Your task to perform on an android device: turn vacation reply on in the gmail app Image 0: 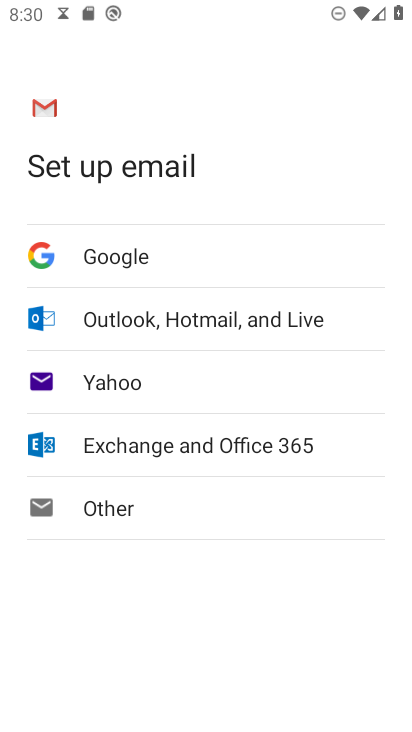
Step 0: press home button
Your task to perform on an android device: turn vacation reply on in the gmail app Image 1: 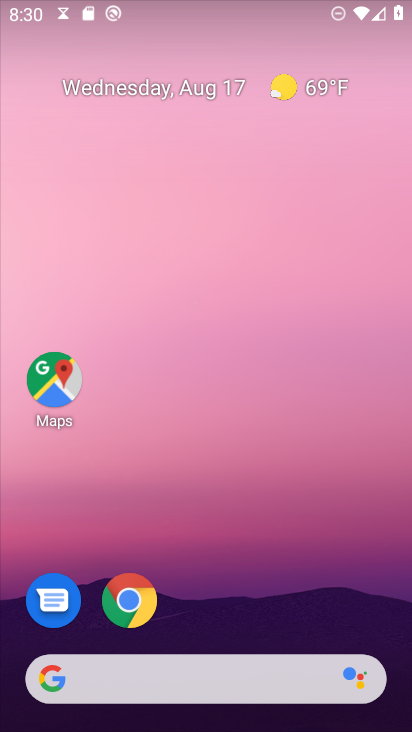
Step 1: drag from (267, 606) to (228, 29)
Your task to perform on an android device: turn vacation reply on in the gmail app Image 2: 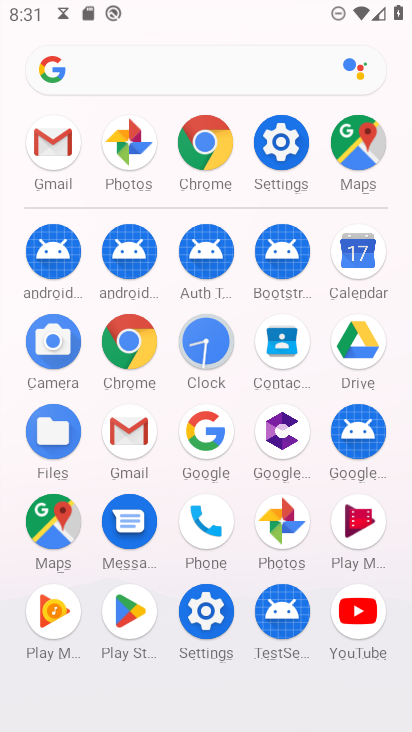
Step 2: click (50, 145)
Your task to perform on an android device: turn vacation reply on in the gmail app Image 3: 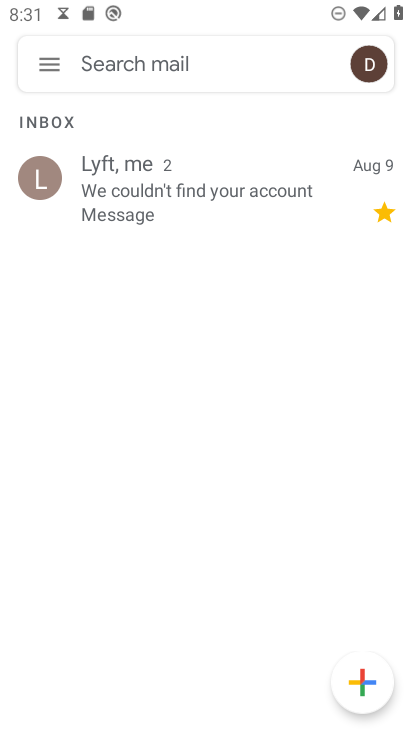
Step 3: click (56, 52)
Your task to perform on an android device: turn vacation reply on in the gmail app Image 4: 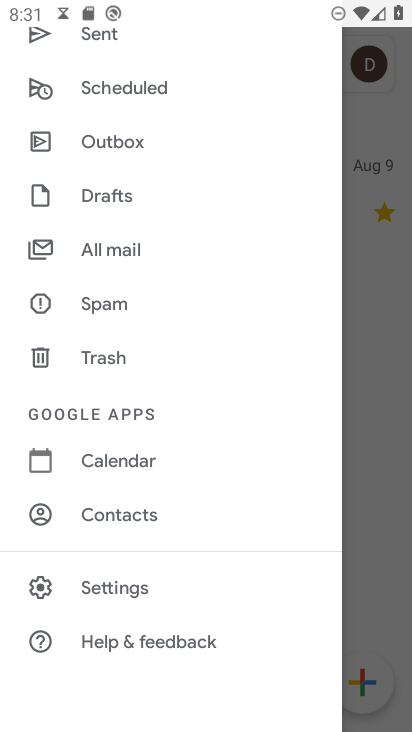
Step 4: click (119, 589)
Your task to perform on an android device: turn vacation reply on in the gmail app Image 5: 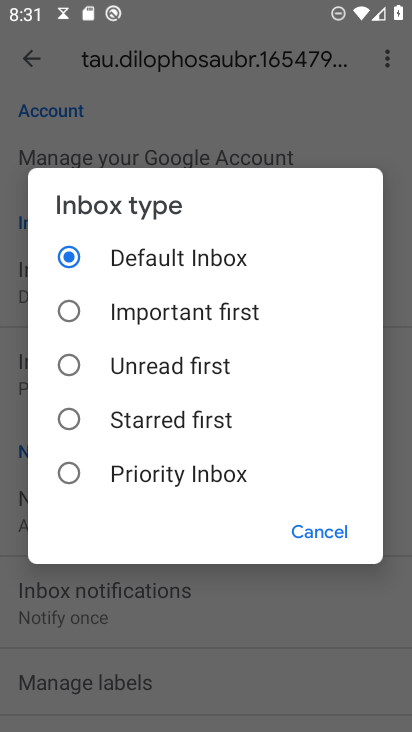
Step 5: click (329, 540)
Your task to perform on an android device: turn vacation reply on in the gmail app Image 6: 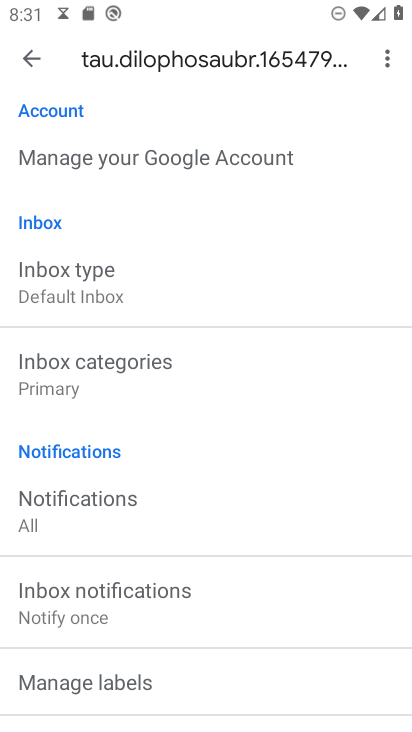
Step 6: drag from (302, 692) to (245, 60)
Your task to perform on an android device: turn vacation reply on in the gmail app Image 7: 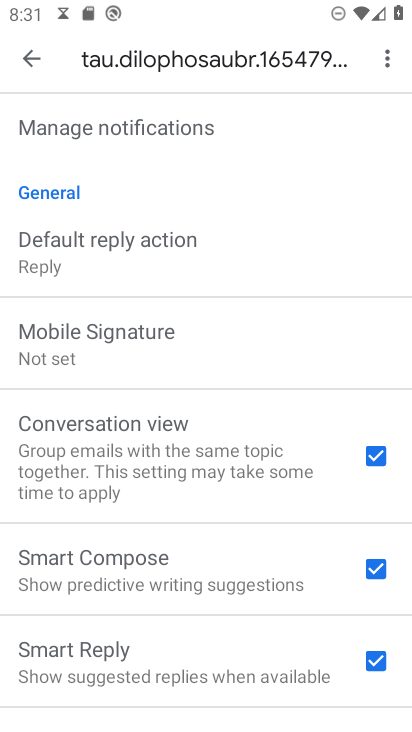
Step 7: drag from (179, 633) to (154, 315)
Your task to perform on an android device: turn vacation reply on in the gmail app Image 8: 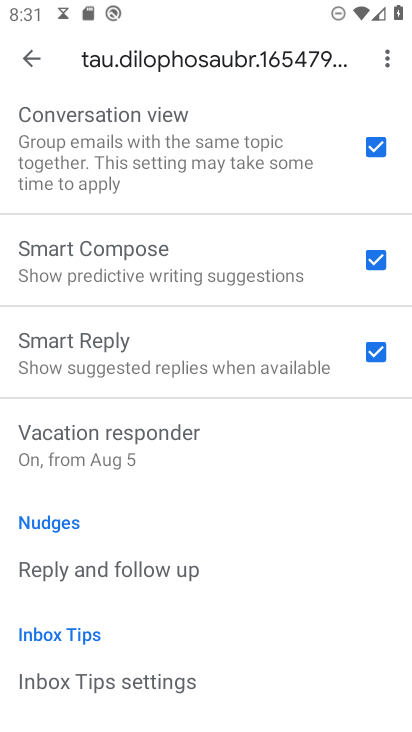
Step 8: click (90, 448)
Your task to perform on an android device: turn vacation reply on in the gmail app Image 9: 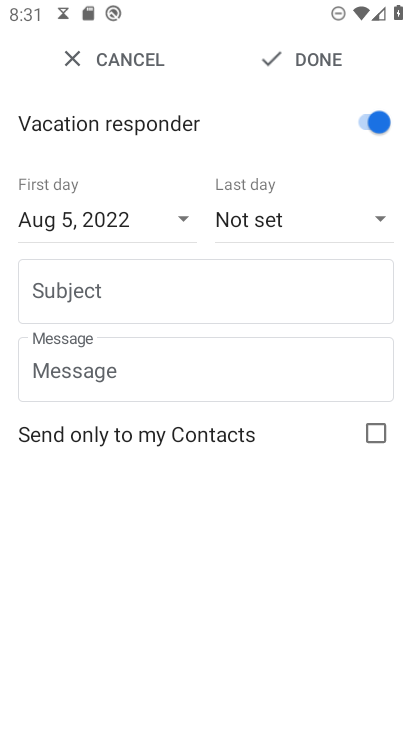
Step 9: click (300, 57)
Your task to perform on an android device: turn vacation reply on in the gmail app Image 10: 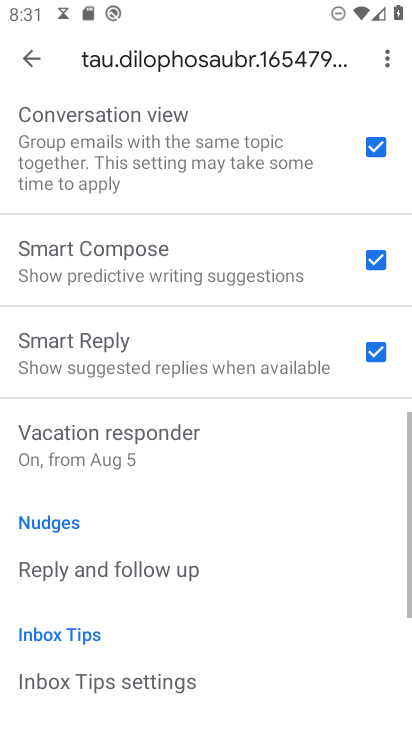
Step 10: task complete